Your task to perform on an android device: change your default location settings in chrome Image 0: 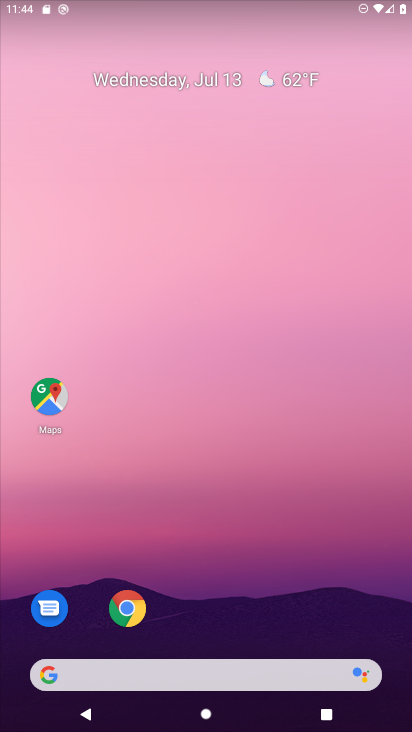
Step 0: drag from (255, 729) to (264, 87)
Your task to perform on an android device: change your default location settings in chrome Image 1: 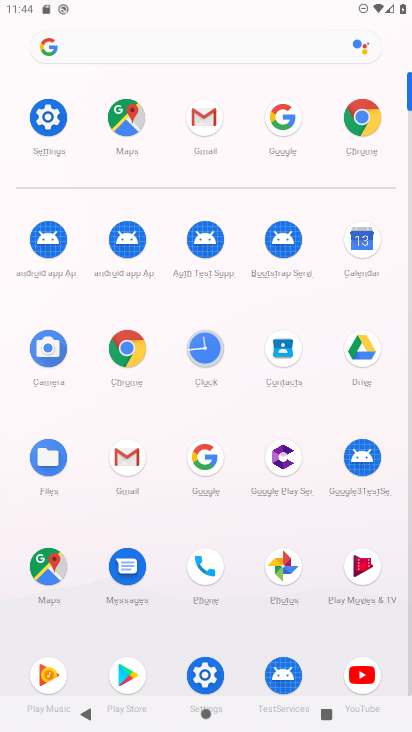
Step 1: click (124, 342)
Your task to perform on an android device: change your default location settings in chrome Image 2: 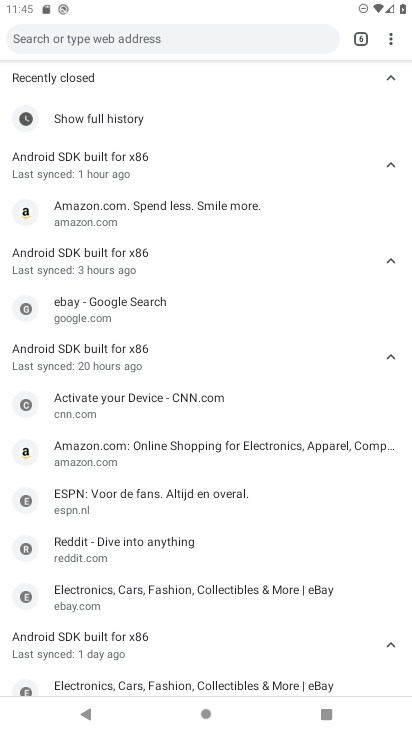
Step 2: click (389, 45)
Your task to perform on an android device: change your default location settings in chrome Image 3: 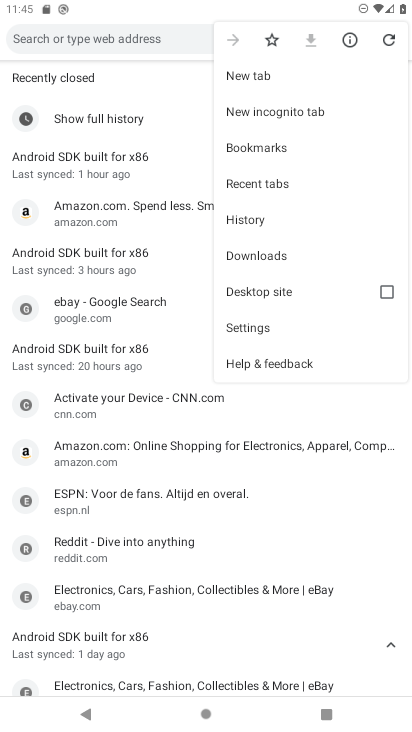
Step 3: click (257, 320)
Your task to perform on an android device: change your default location settings in chrome Image 4: 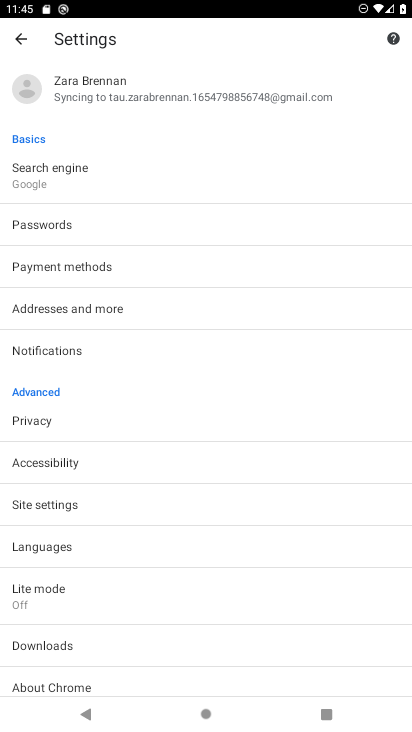
Step 4: click (46, 502)
Your task to perform on an android device: change your default location settings in chrome Image 5: 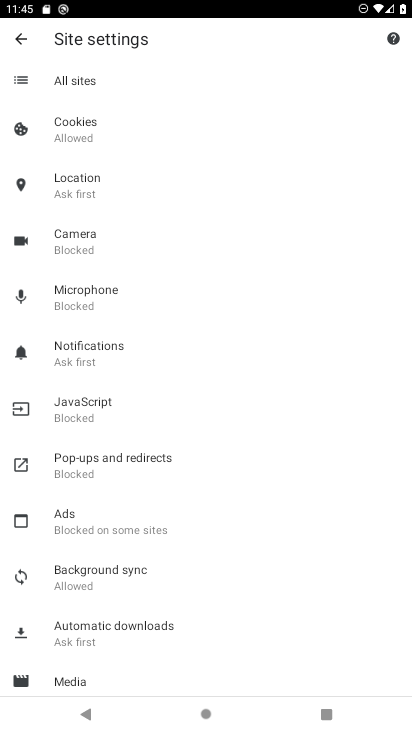
Step 5: click (65, 181)
Your task to perform on an android device: change your default location settings in chrome Image 6: 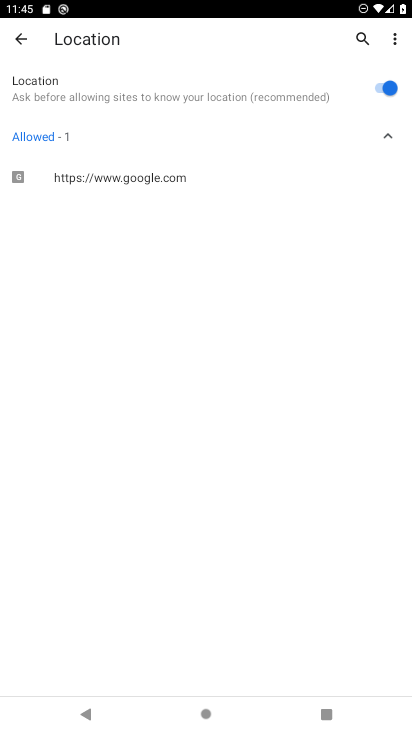
Step 6: click (379, 84)
Your task to perform on an android device: change your default location settings in chrome Image 7: 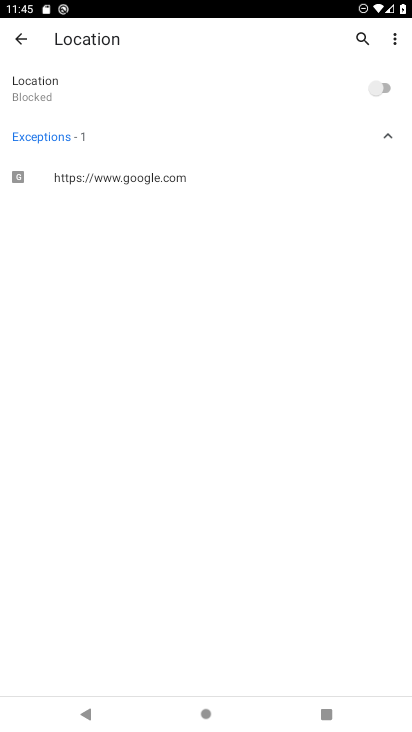
Step 7: task complete